Your task to perform on an android device: Check the news Image 0: 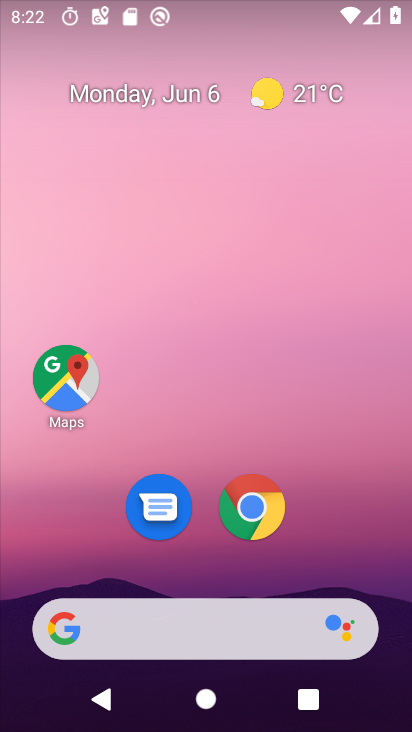
Step 0: click (254, 540)
Your task to perform on an android device: Check the news Image 1: 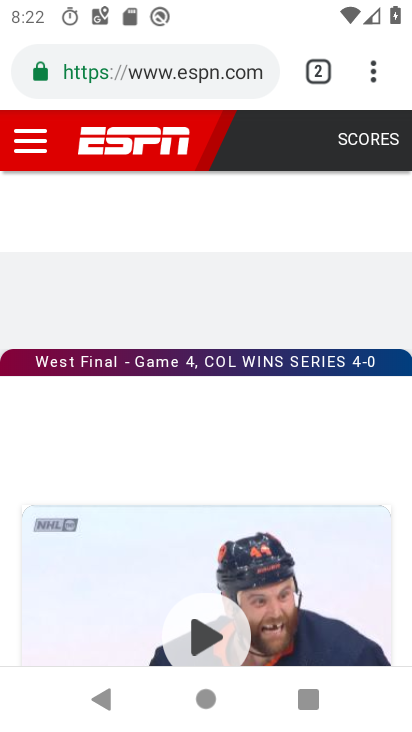
Step 1: click (162, 72)
Your task to perform on an android device: Check the news Image 2: 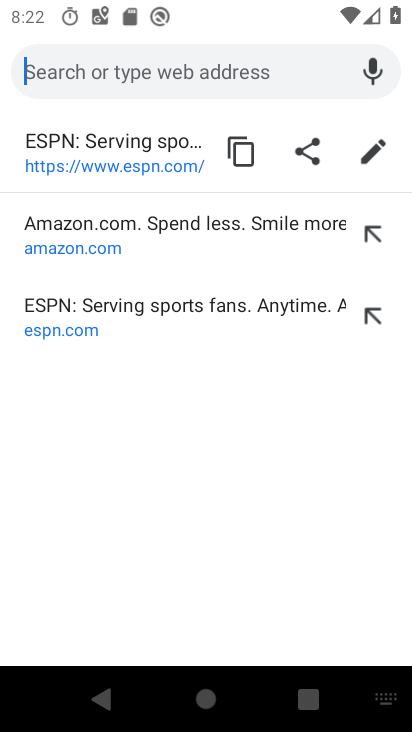
Step 2: type " news"
Your task to perform on an android device: Check the news Image 3: 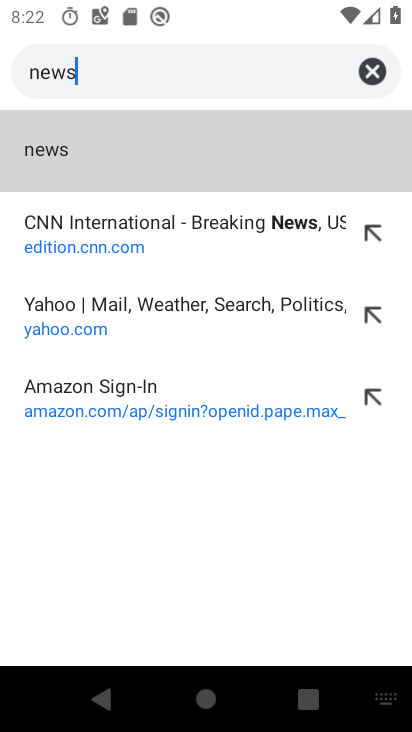
Step 3: type ""
Your task to perform on an android device: Check the news Image 4: 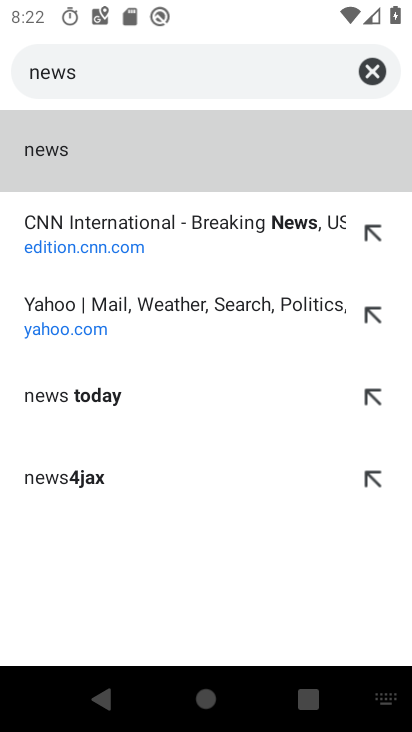
Step 4: click (71, 139)
Your task to perform on an android device: Check the news Image 5: 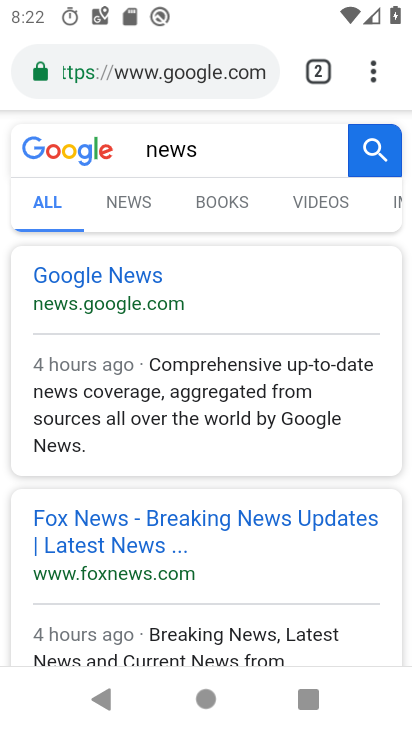
Step 5: task complete